Your task to perform on an android device: add a contact Image 0: 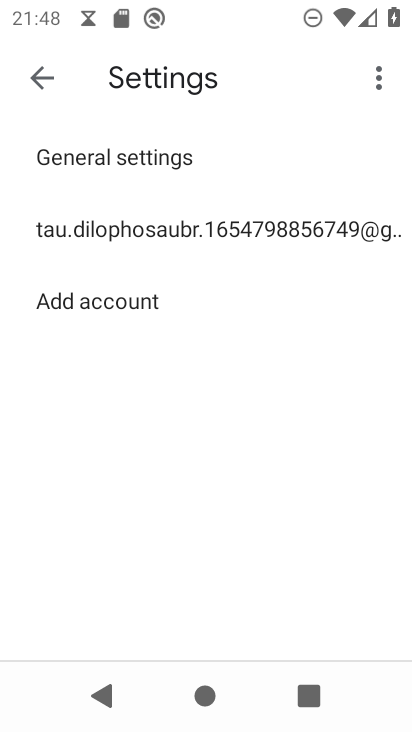
Step 0: press home button
Your task to perform on an android device: add a contact Image 1: 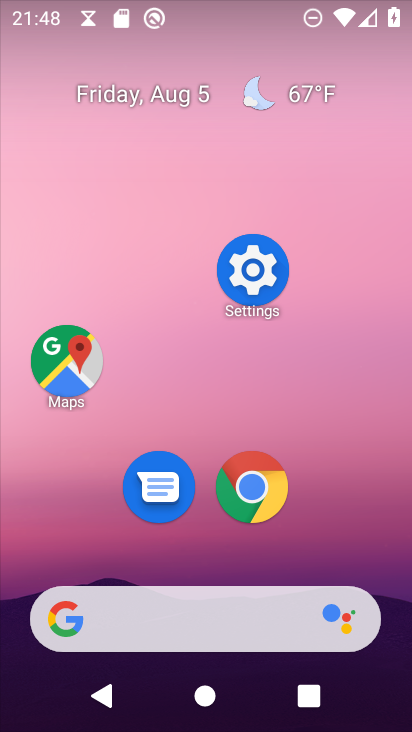
Step 1: drag from (202, 609) to (307, 74)
Your task to perform on an android device: add a contact Image 2: 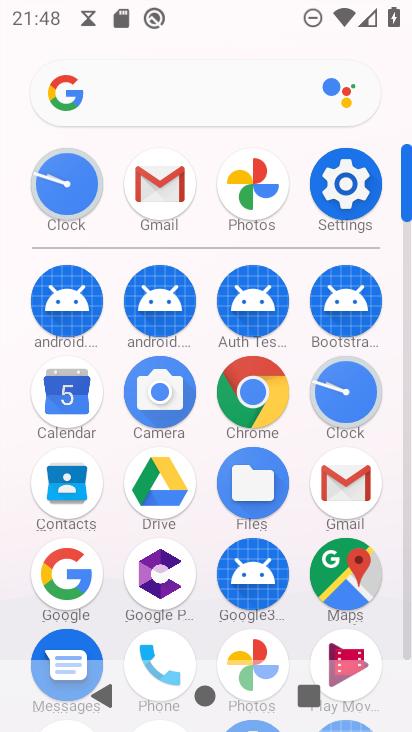
Step 2: click (62, 485)
Your task to perform on an android device: add a contact Image 3: 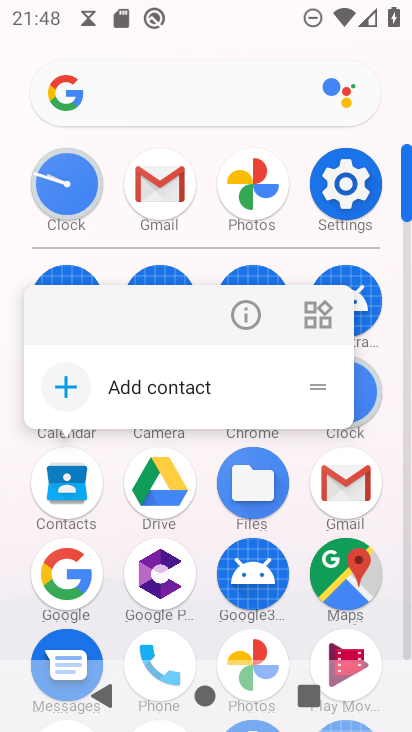
Step 3: click (63, 500)
Your task to perform on an android device: add a contact Image 4: 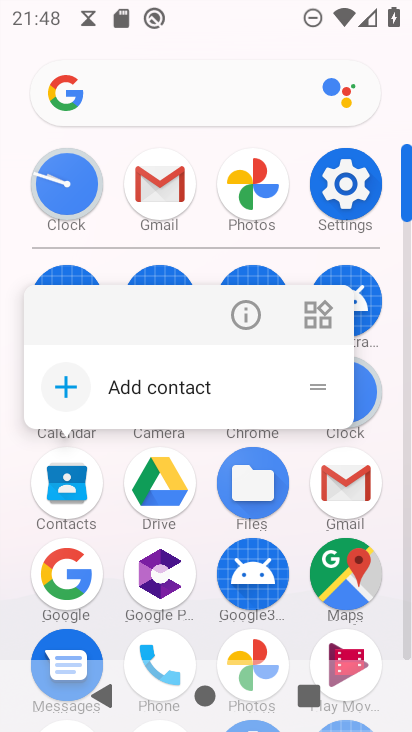
Step 4: click (63, 508)
Your task to perform on an android device: add a contact Image 5: 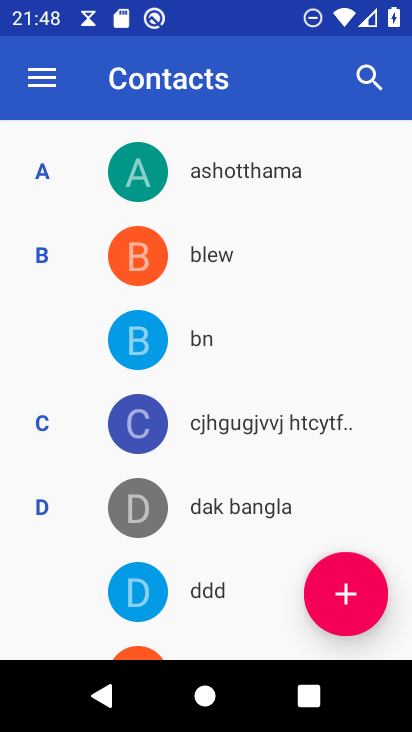
Step 5: task complete